Your task to perform on an android device: toggle pop-ups in chrome Image 0: 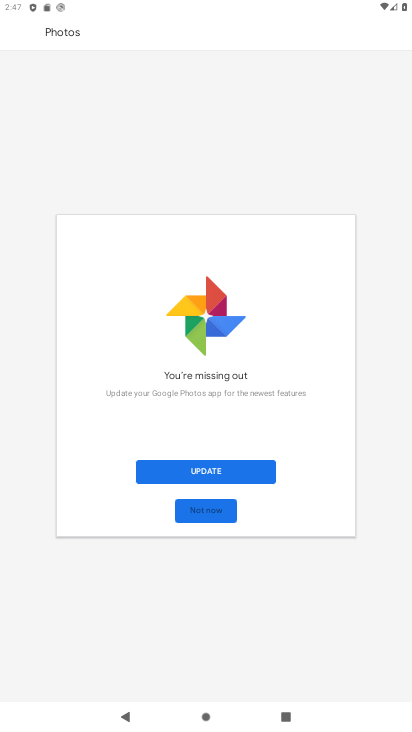
Step 0: press back button
Your task to perform on an android device: toggle pop-ups in chrome Image 1: 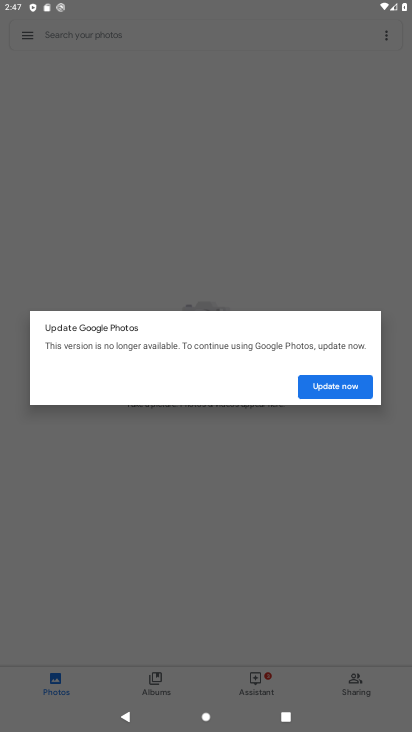
Step 1: press home button
Your task to perform on an android device: toggle pop-ups in chrome Image 2: 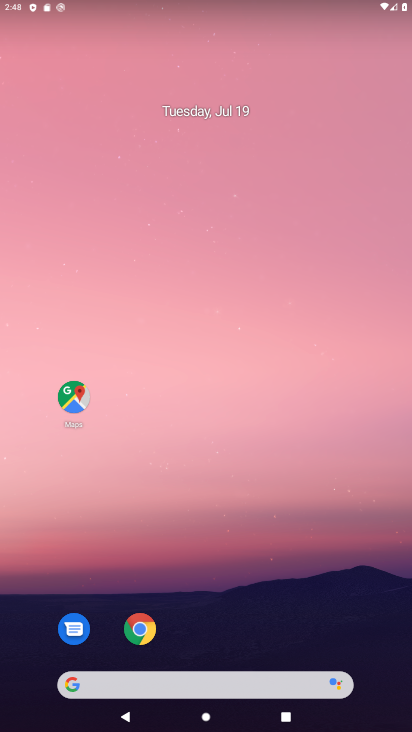
Step 2: click (130, 638)
Your task to perform on an android device: toggle pop-ups in chrome Image 3: 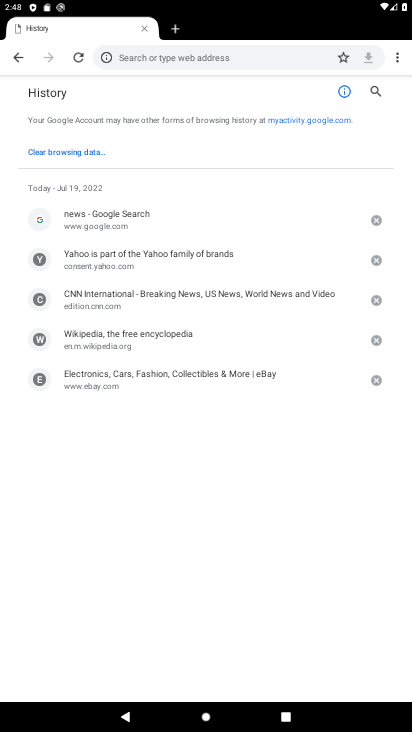
Step 3: drag from (397, 56) to (285, 302)
Your task to perform on an android device: toggle pop-ups in chrome Image 4: 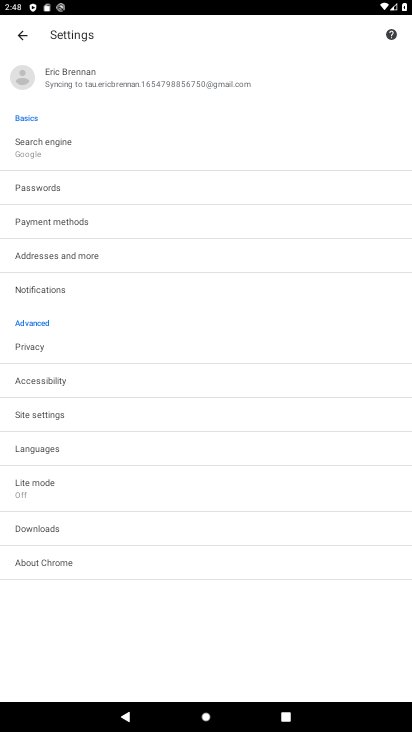
Step 4: click (74, 418)
Your task to perform on an android device: toggle pop-ups in chrome Image 5: 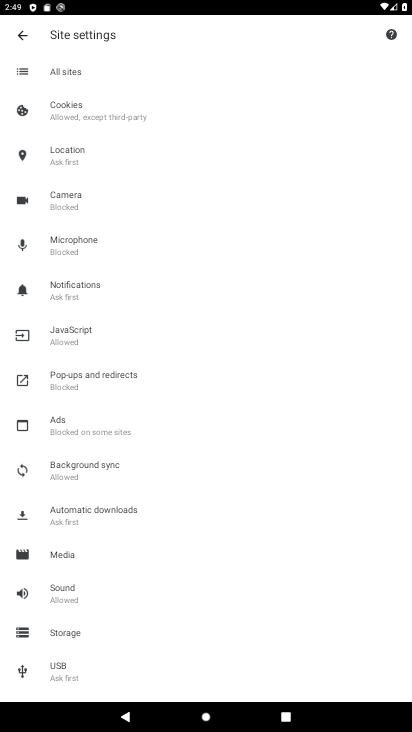
Step 5: click (96, 380)
Your task to perform on an android device: toggle pop-ups in chrome Image 6: 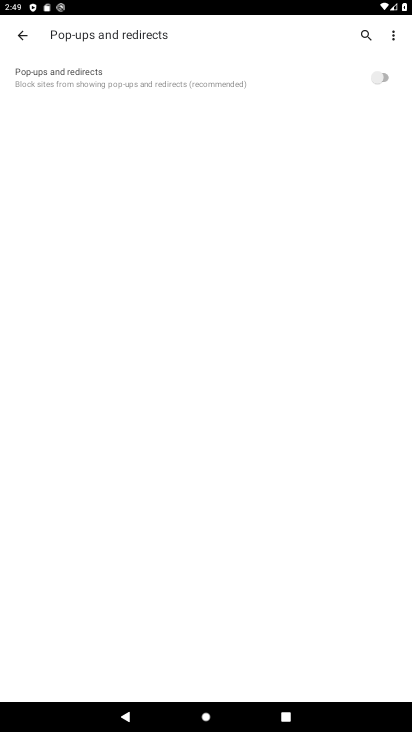
Step 6: click (383, 74)
Your task to perform on an android device: toggle pop-ups in chrome Image 7: 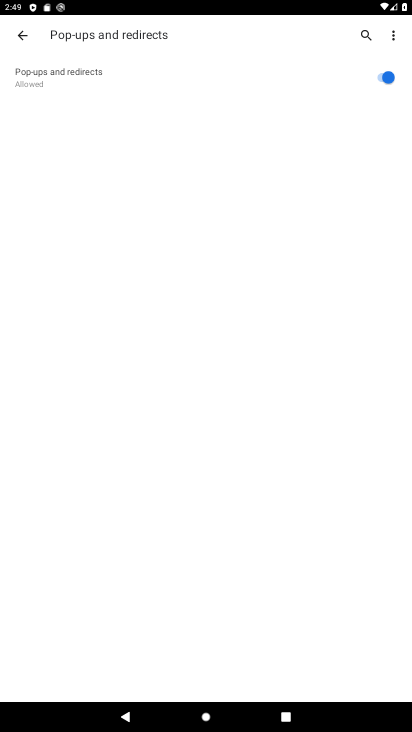
Step 7: task complete